Your task to perform on an android device: What is the recent news? Image 0: 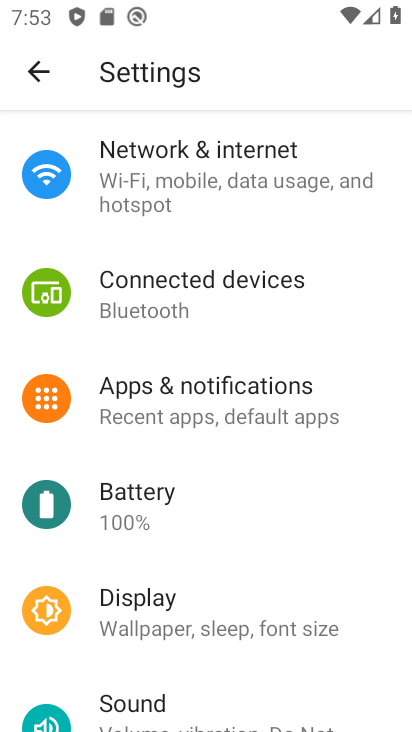
Step 0: press home button
Your task to perform on an android device: What is the recent news? Image 1: 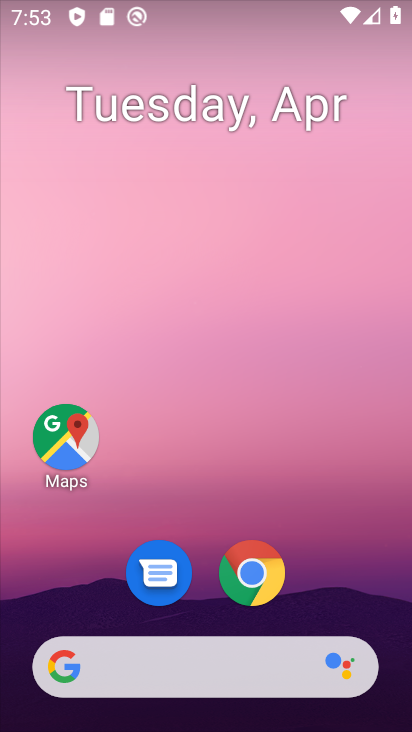
Step 1: click (165, 665)
Your task to perform on an android device: What is the recent news? Image 2: 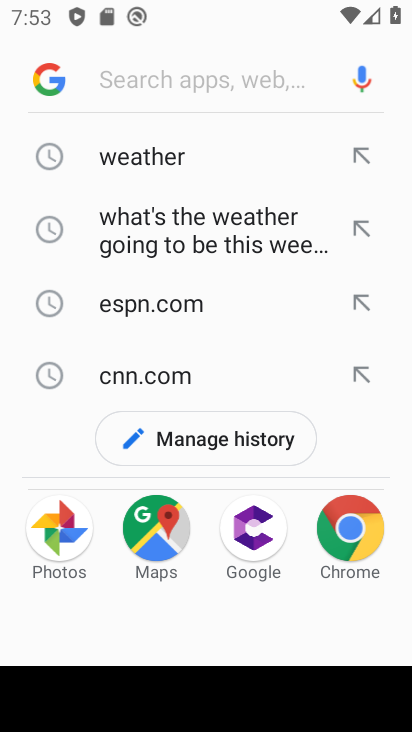
Step 2: click (55, 75)
Your task to perform on an android device: What is the recent news? Image 3: 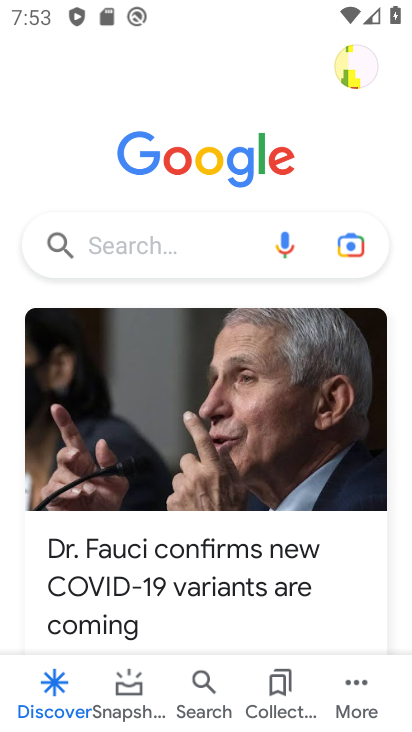
Step 3: task complete